Your task to perform on an android device: Go to network settings Image 0: 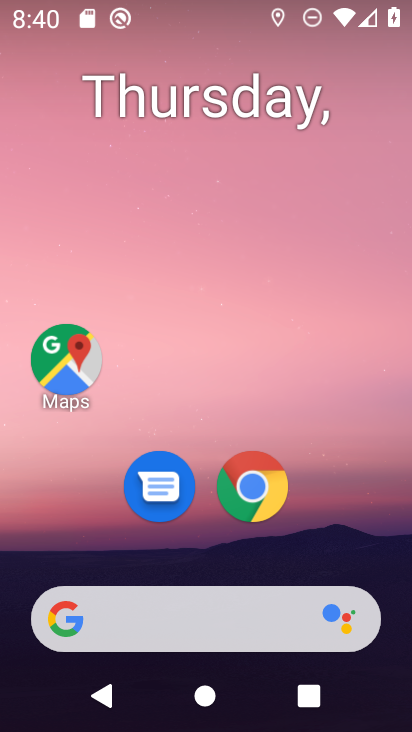
Step 0: drag from (205, 559) to (217, 56)
Your task to perform on an android device: Go to network settings Image 1: 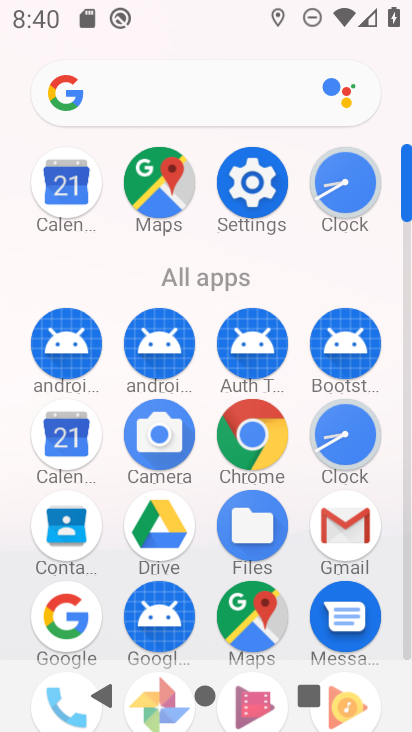
Step 1: click (258, 178)
Your task to perform on an android device: Go to network settings Image 2: 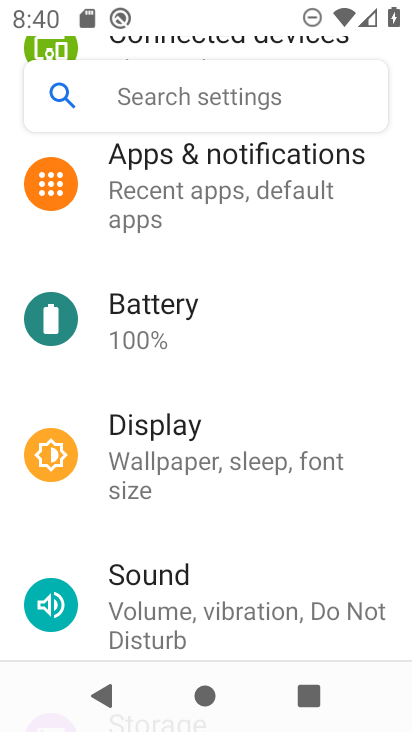
Step 2: drag from (267, 229) to (137, 729)
Your task to perform on an android device: Go to network settings Image 3: 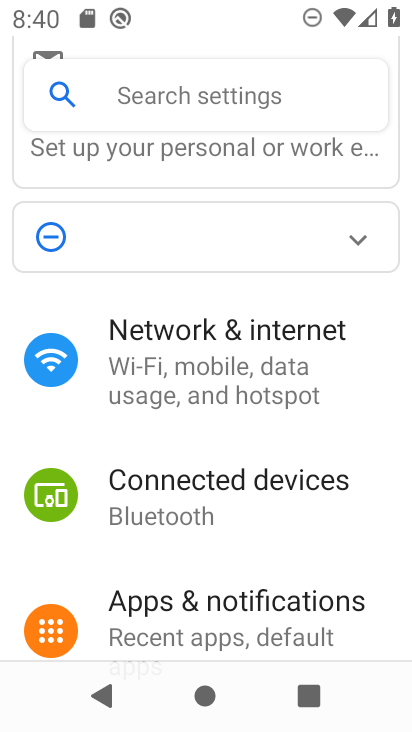
Step 3: click (211, 364)
Your task to perform on an android device: Go to network settings Image 4: 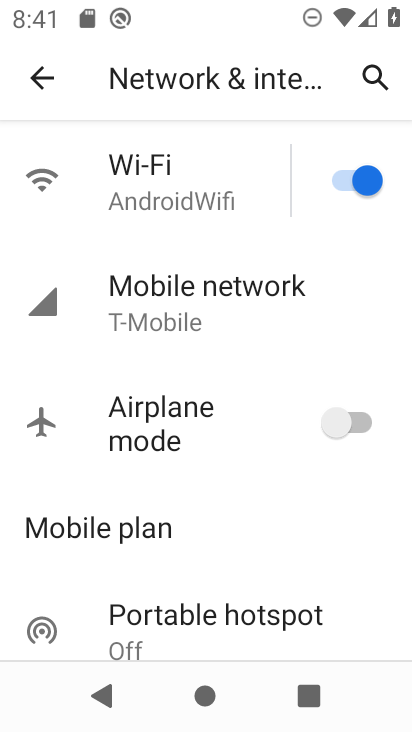
Step 4: task complete